Your task to perform on an android device: Show the shopping cart on walmart. Add dell alienware to the cart on walmart Image 0: 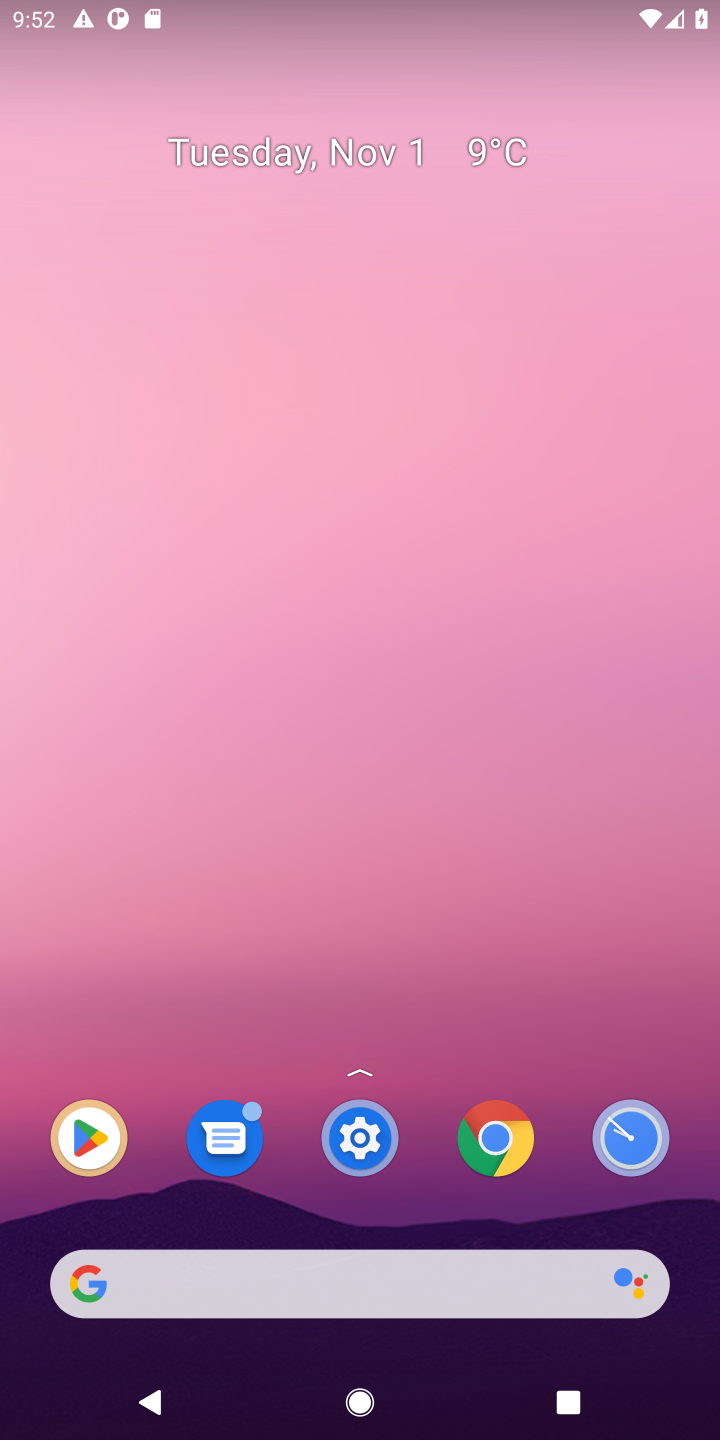
Step 0: drag from (453, 1034) to (523, 217)
Your task to perform on an android device: Show the shopping cart on walmart. Add dell alienware to the cart on walmart Image 1: 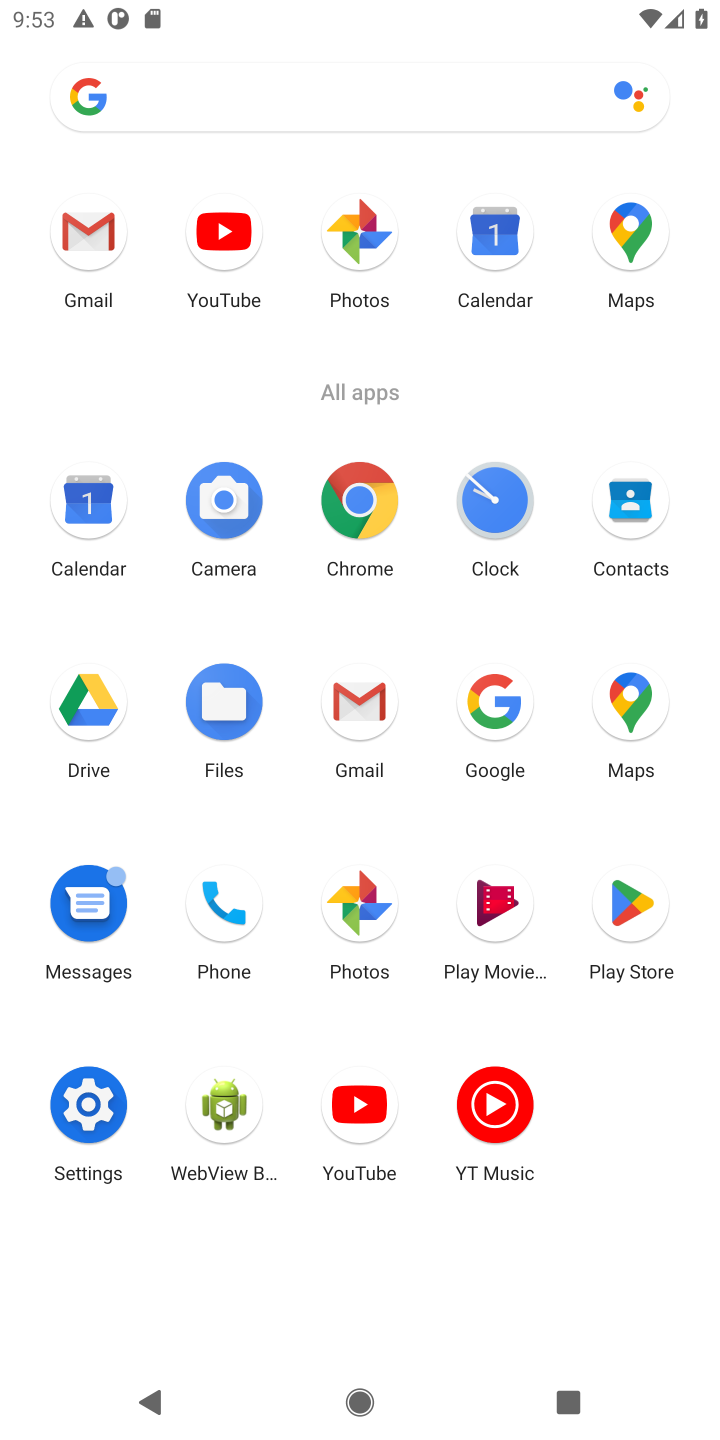
Step 1: click (361, 503)
Your task to perform on an android device: Show the shopping cart on walmart. Add dell alienware to the cart on walmart Image 2: 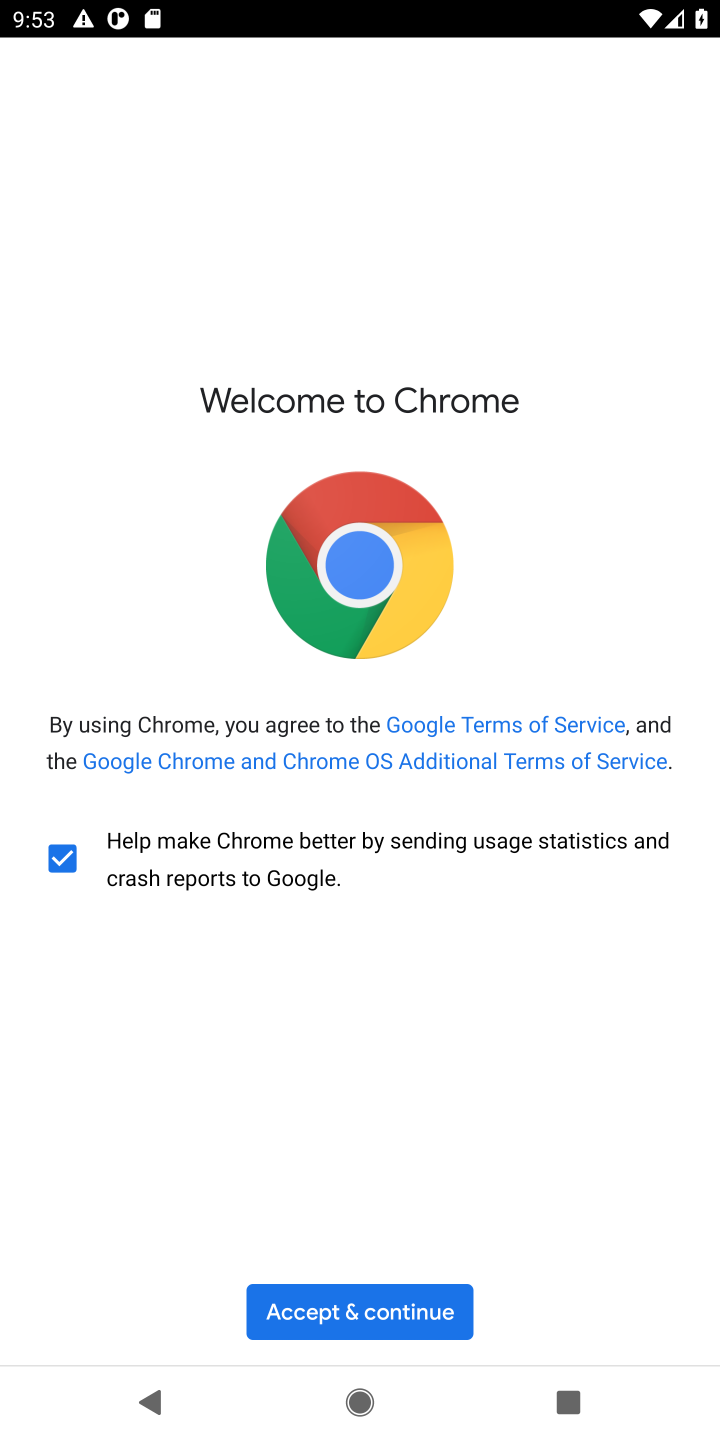
Step 2: click (349, 1312)
Your task to perform on an android device: Show the shopping cart on walmart. Add dell alienware to the cart on walmart Image 3: 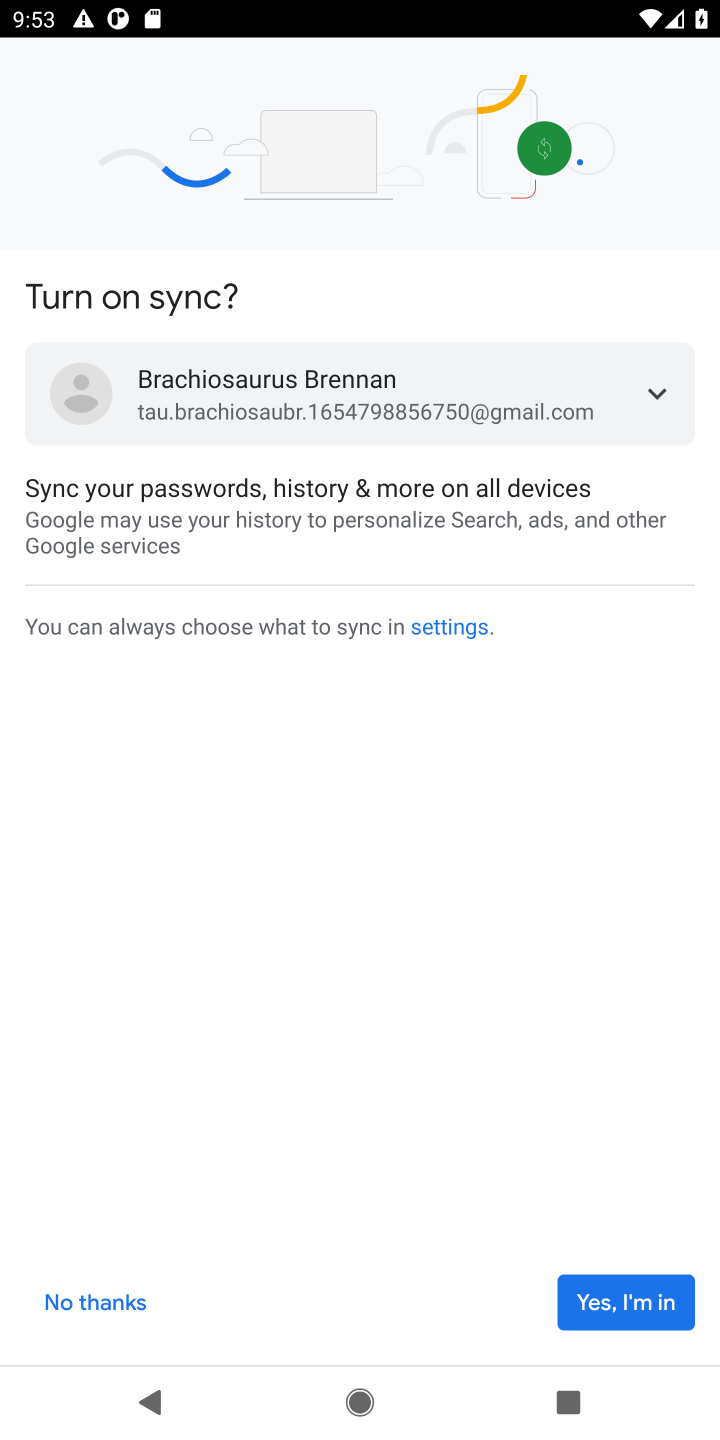
Step 3: click (635, 1308)
Your task to perform on an android device: Show the shopping cart on walmart. Add dell alienware to the cart on walmart Image 4: 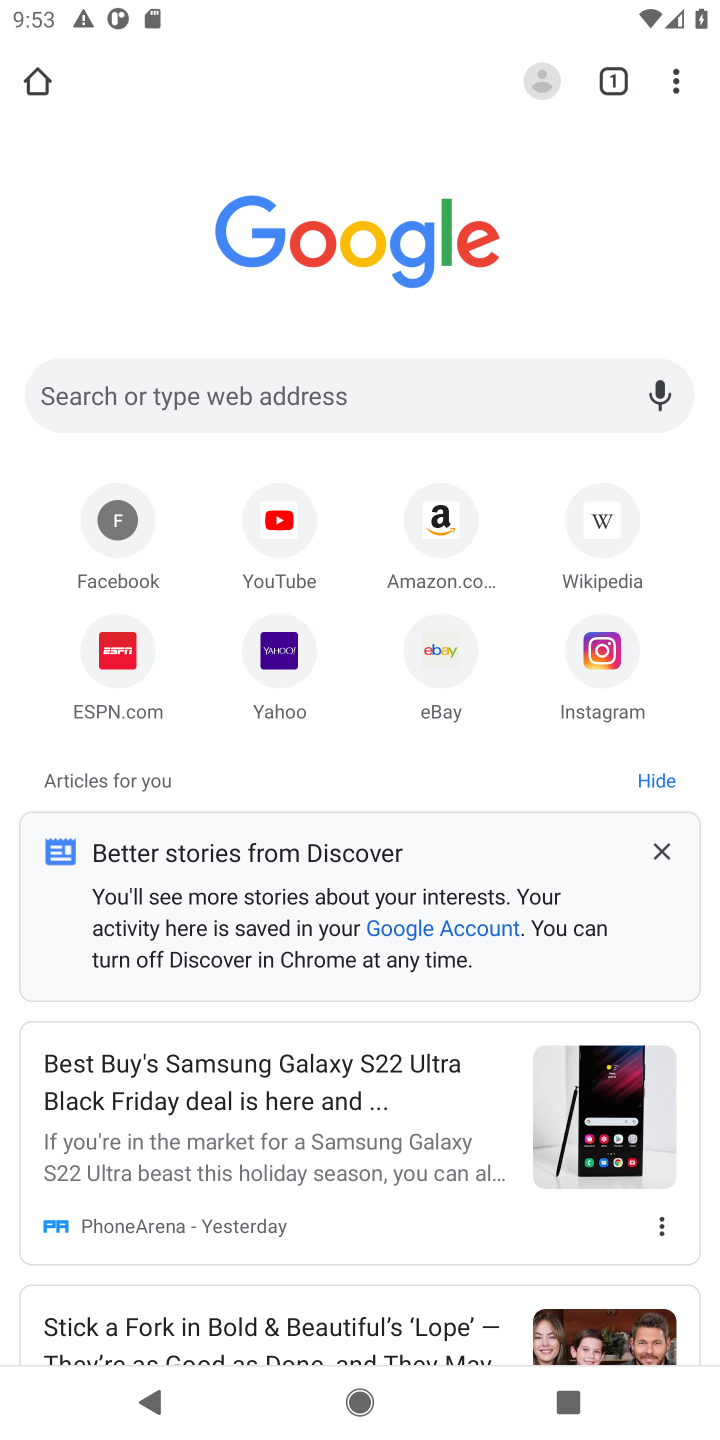
Step 4: click (230, 396)
Your task to perform on an android device: Show the shopping cart on walmart. Add dell alienware to the cart on walmart Image 5: 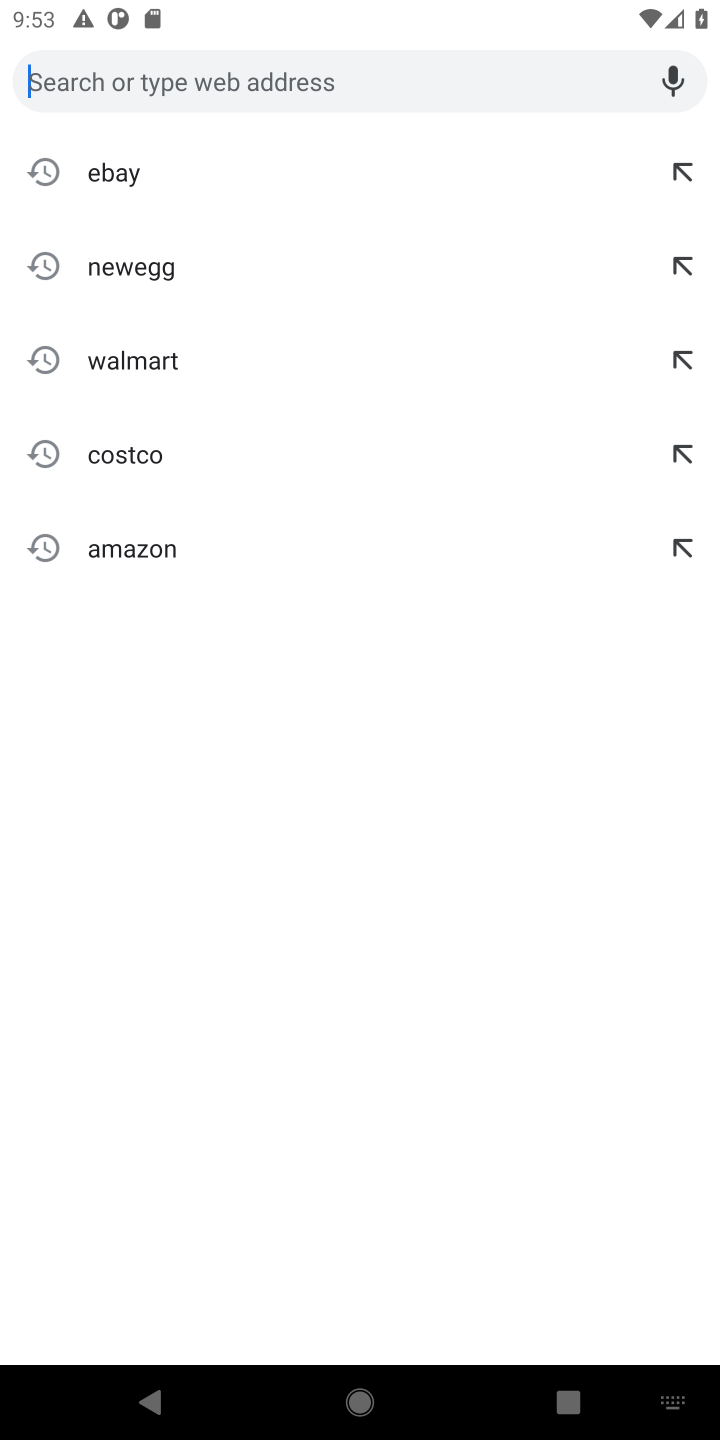
Step 5: click (199, 362)
Your task to perform on an android device: Show the shopping cart on walmart. Add dell alienware to the cart on walmart Image 6: 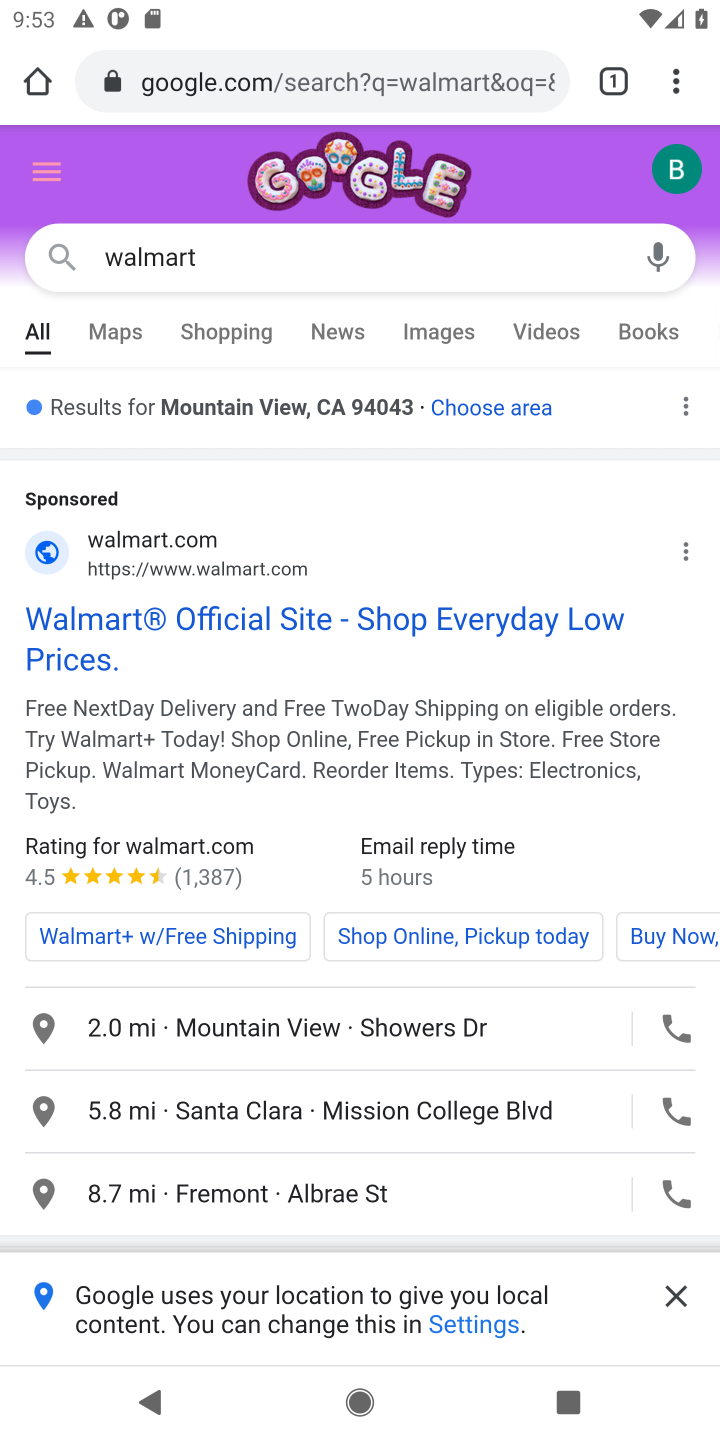
Step 6: click (239, 633)
Your task to perform on an android device: Show the shopping cart on walmart. Add dell alienware to the cart on walmart Image 7: 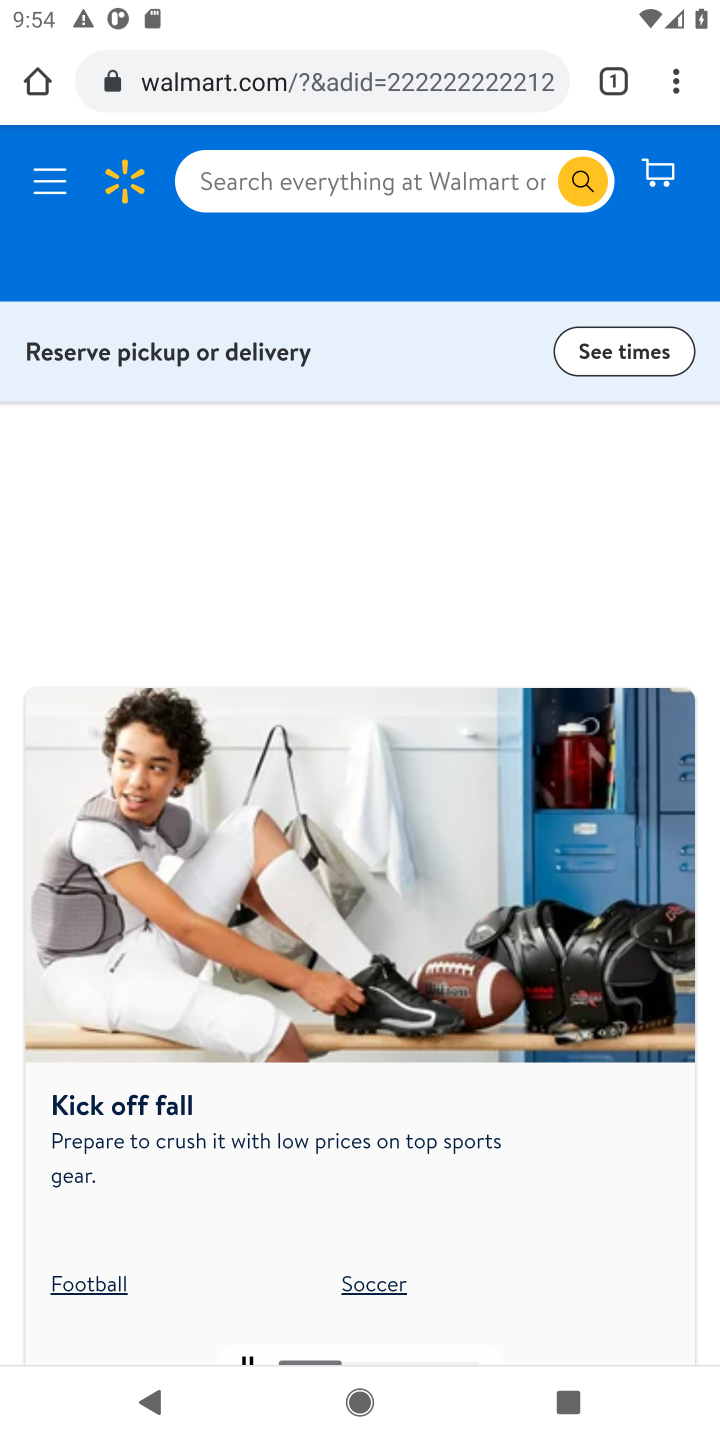
Step 7: drag from (355, 1227) to (490, 504)
Your task to perform on an android device: Show the shopping cart on walmart. Add dell alienware to the cart on walmart Image 8: 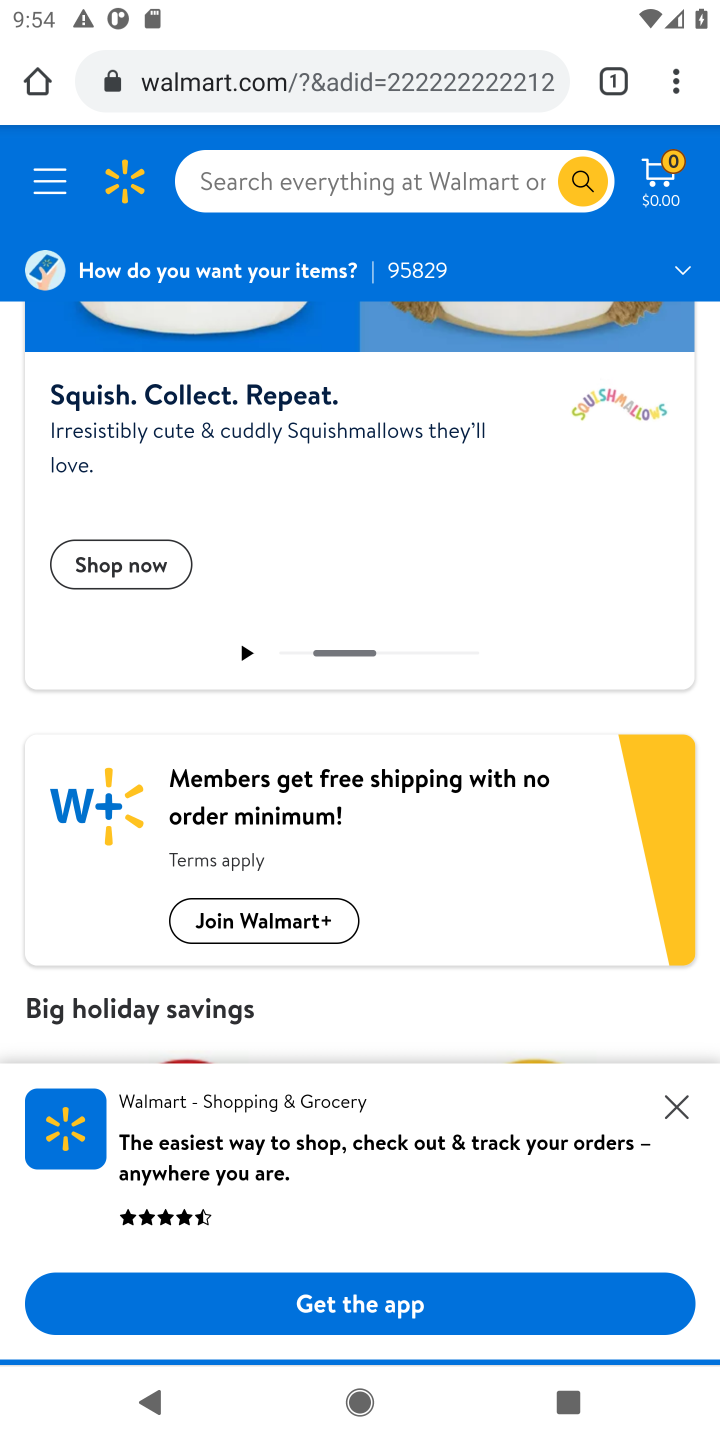
Step 8: click (671, 1108)
Your task to perform on an android device: Show the shopping cart on walmart. Add dell alienware to the cart on walmart Image 9: 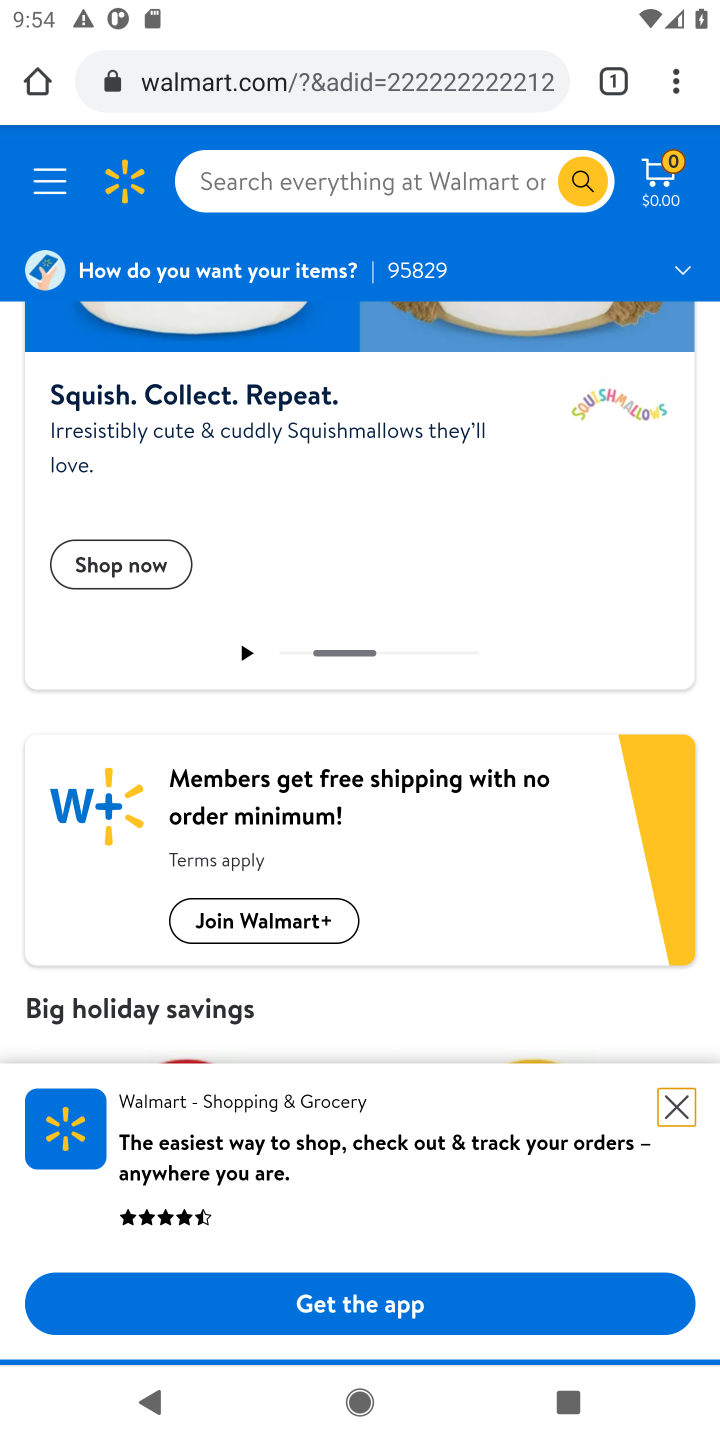
Step 9: click (322, 175)
Your task to perform on an android device: Show the shopping cart on walmart. Add dell alienware to the cart on walmart Image 10: 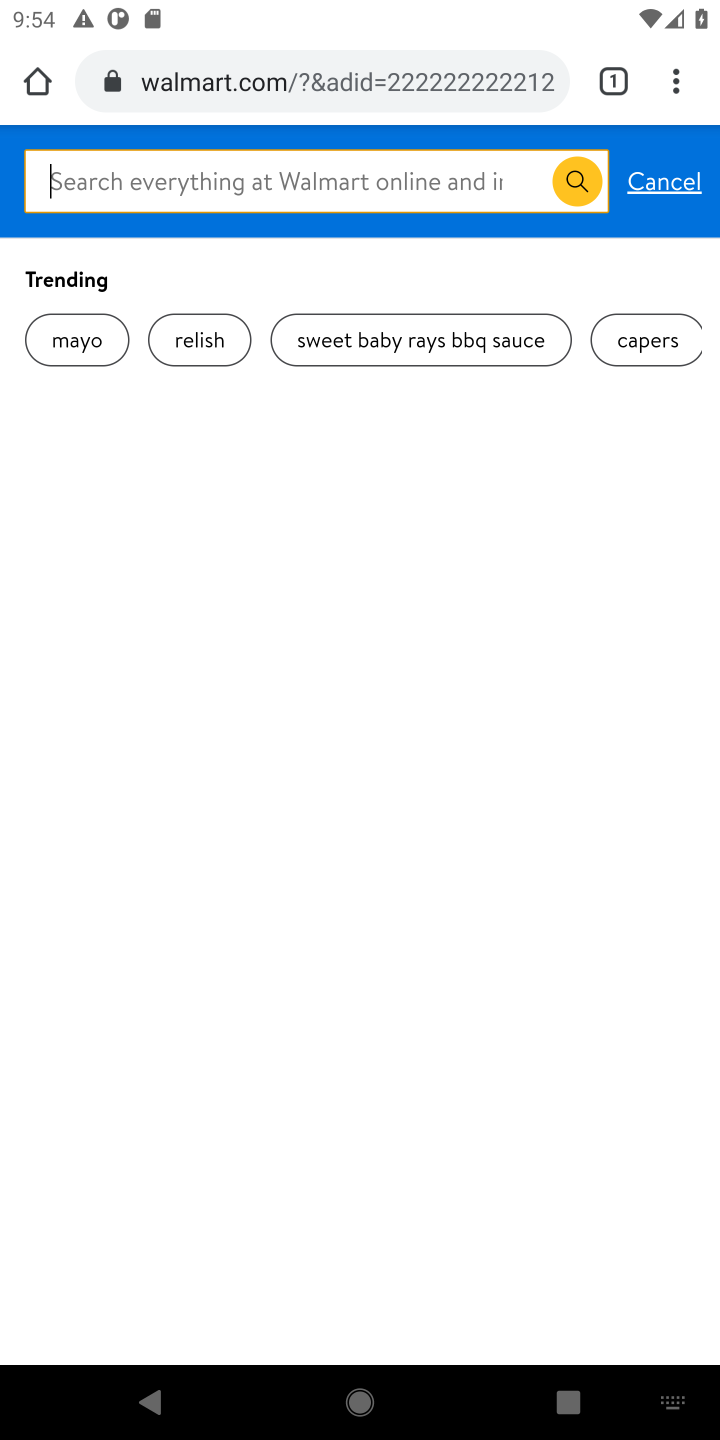
Step 10: type "dell alienware"
Your task to perform on an android device: Show the shopping cart on walmart. Add dell alienware to the cart on walmart Image 11: 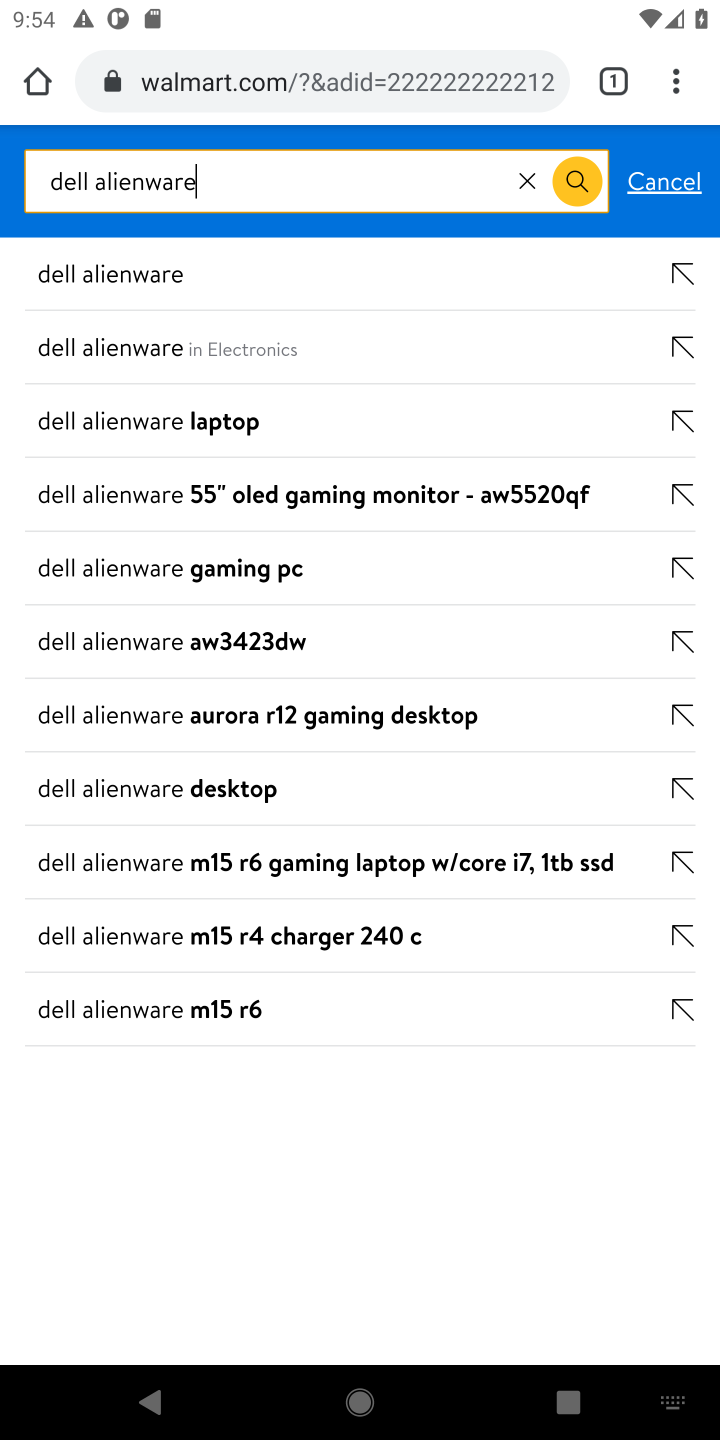
Step 11: click (262, 333)
Your task to perform on an android device: Show the shopping cart on walmart. Add dell alienware to the cart on walmart Image 12: 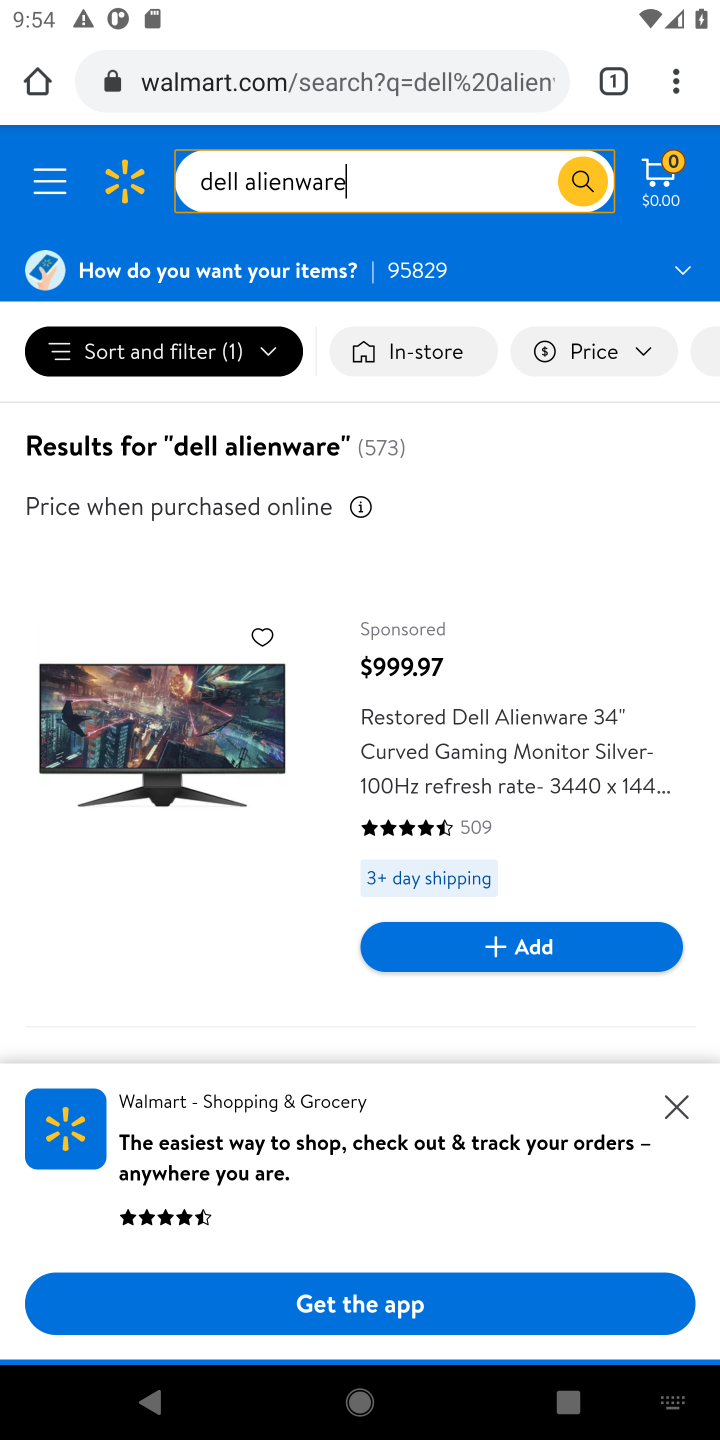
Step 12: click (675, 1094)
Your task to perform on an android device: Show the shopping cart on walmart. Add dell alienware to the cart on walmart Image 13: 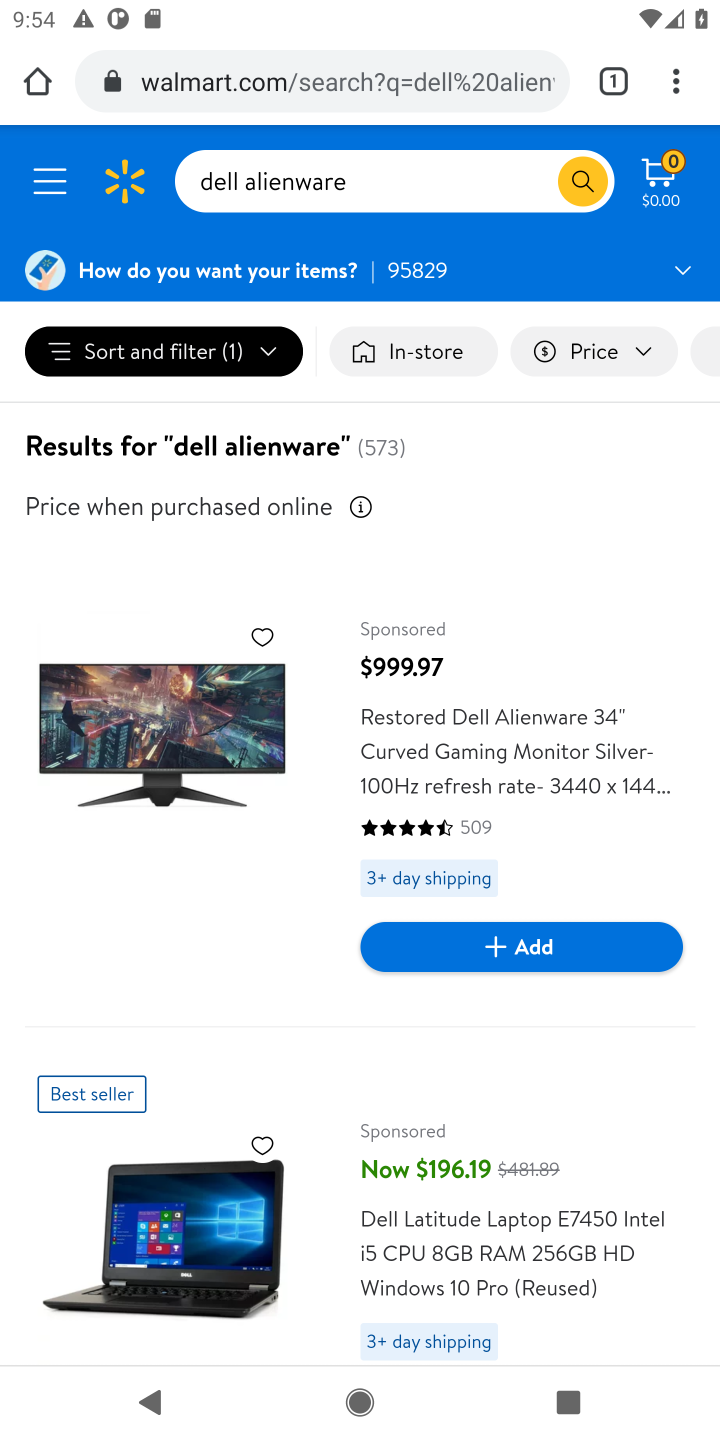
Step 13: click (505, 947)
Your task to perform on an android device: Show the shopping cart on walmart. Add dell alienware to the cart on walmart Image 14: 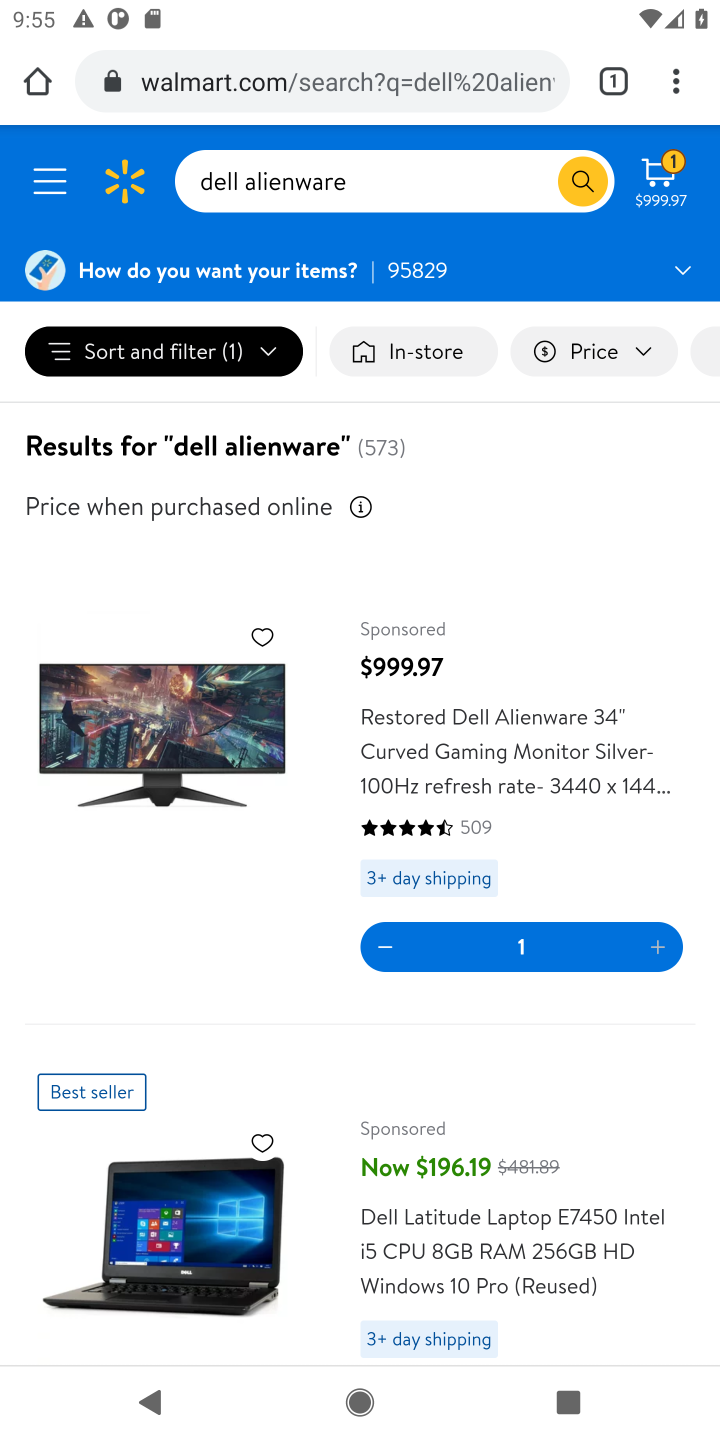
Step 14: click (667, 172)
Your task to perform on an android device: Show the shopping cart on walmart. Add dell alienware to the cart on walmart Image 15: 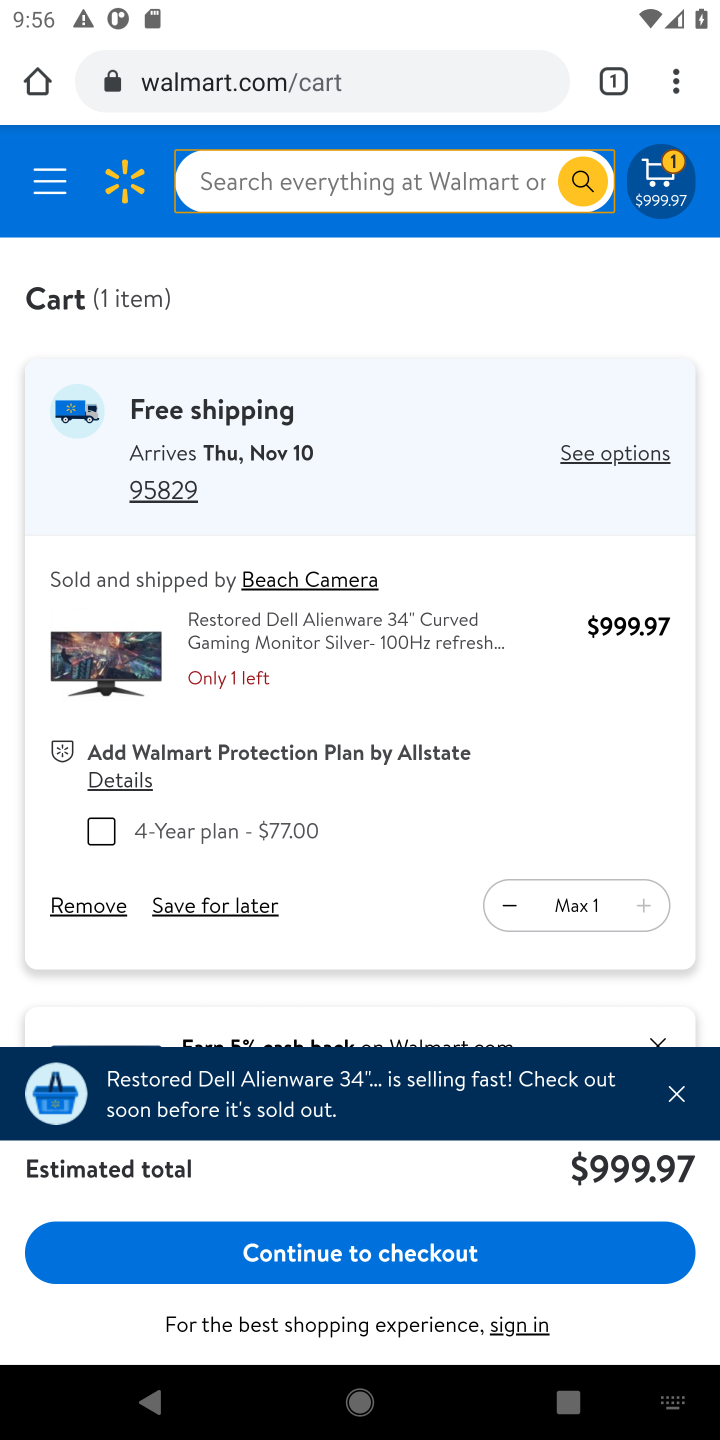
Step 15: task complete